Your task to perform on an android device: Open battery settings Image 0: 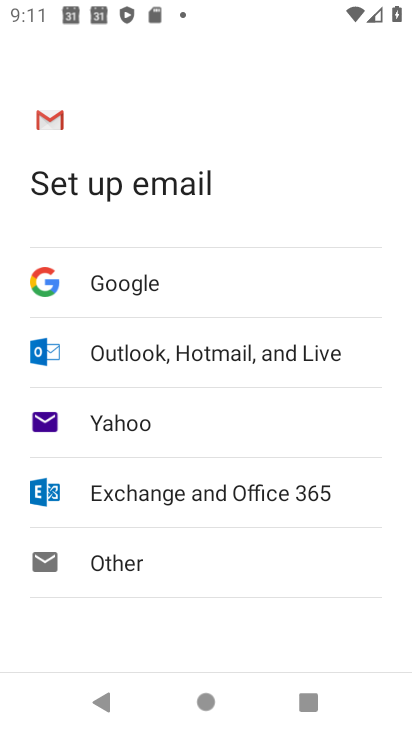
Step 0: press home button
Your task to perform on an android device: Open battery settings Image 1: 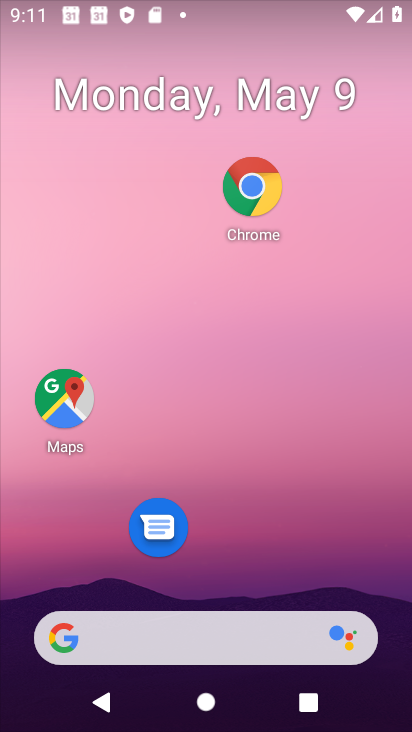
Step 1: drag from (235, 576) to (290, 82)
Your task to perform on an android device: Open battery settings Image 2: 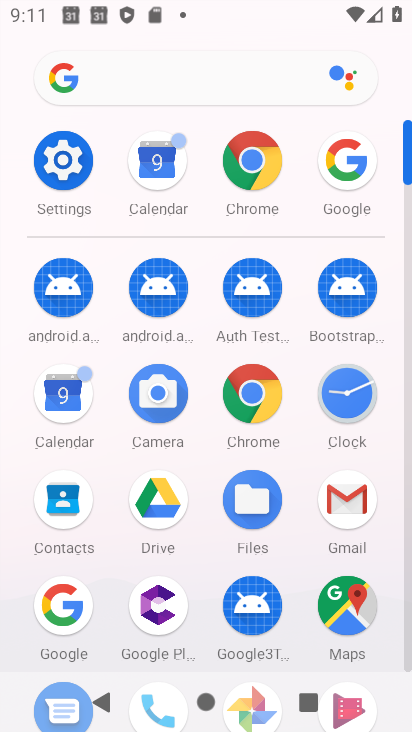
Step 2: click (66, 157)
Your task to perform on an android device: Open battery settings Image 3: 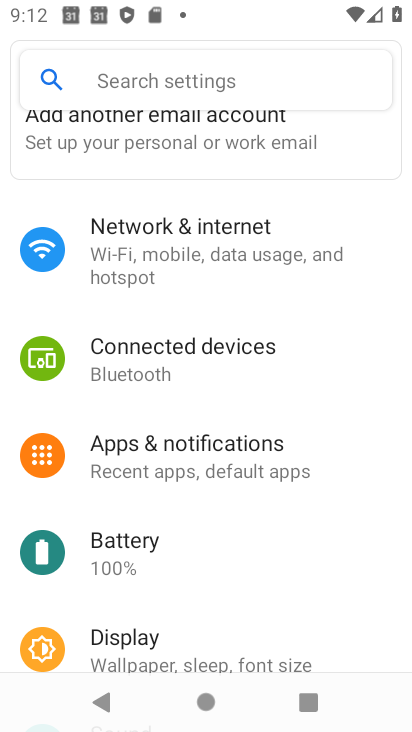
Step 3: click (152, 555)
Your task to perform on an android device: Open battery settings Image 4: 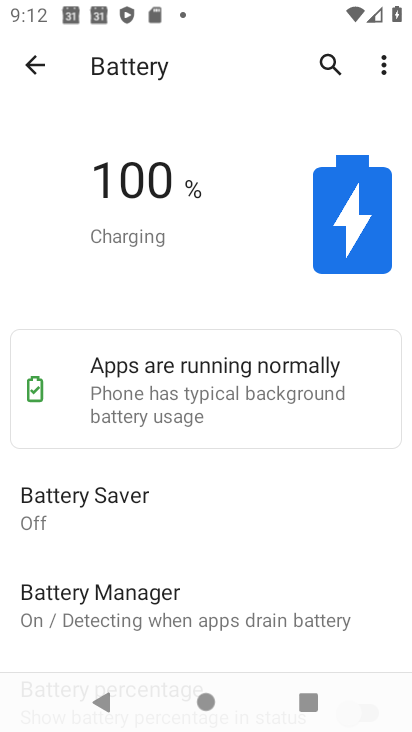
Step 4: task complete